Your task to perform on an android device: View the shopping cart on walmart. Add "lg ultragear" to the cart on walmart, then select checkout. Image 0: 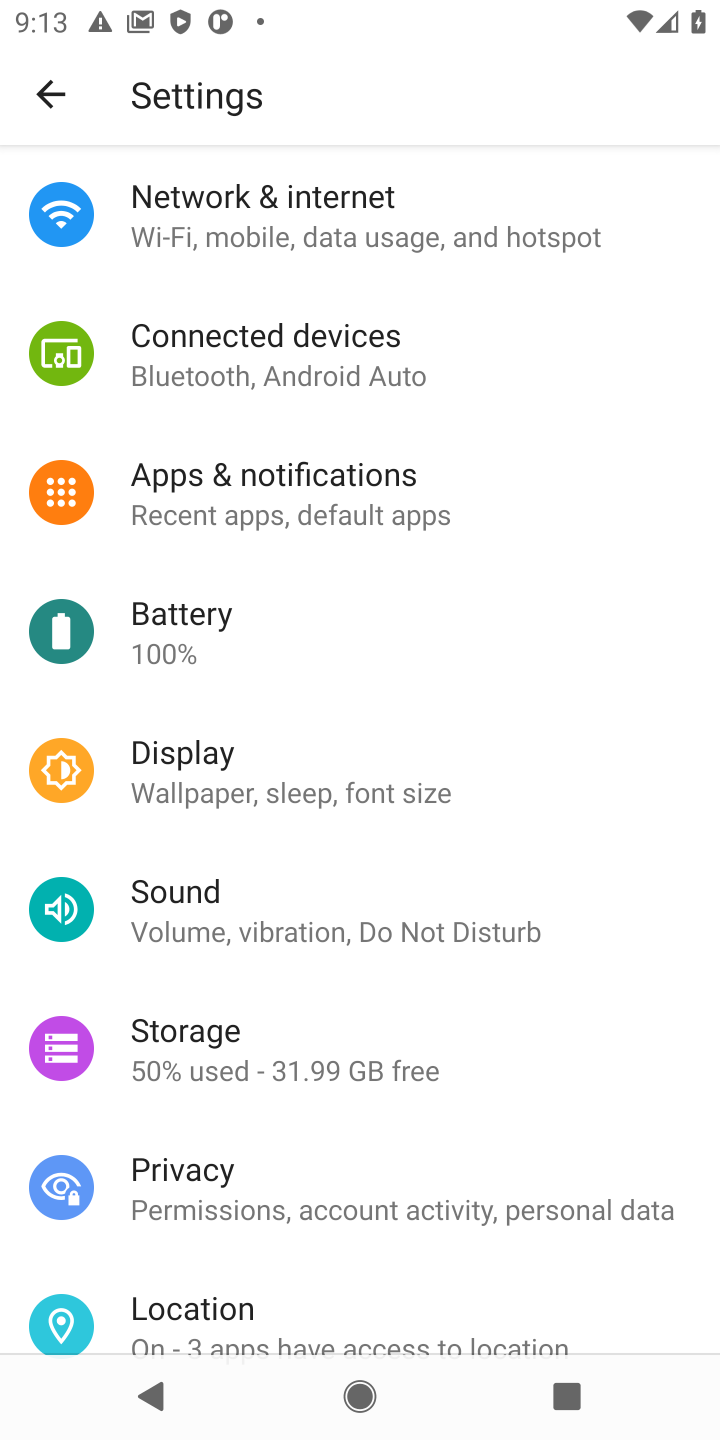
Step 0: press home button
Your task to perform on an android device: View the shopping cart on walmart. Add "lg ultragear" to the cart on walmart, then select checkout. Image 1: 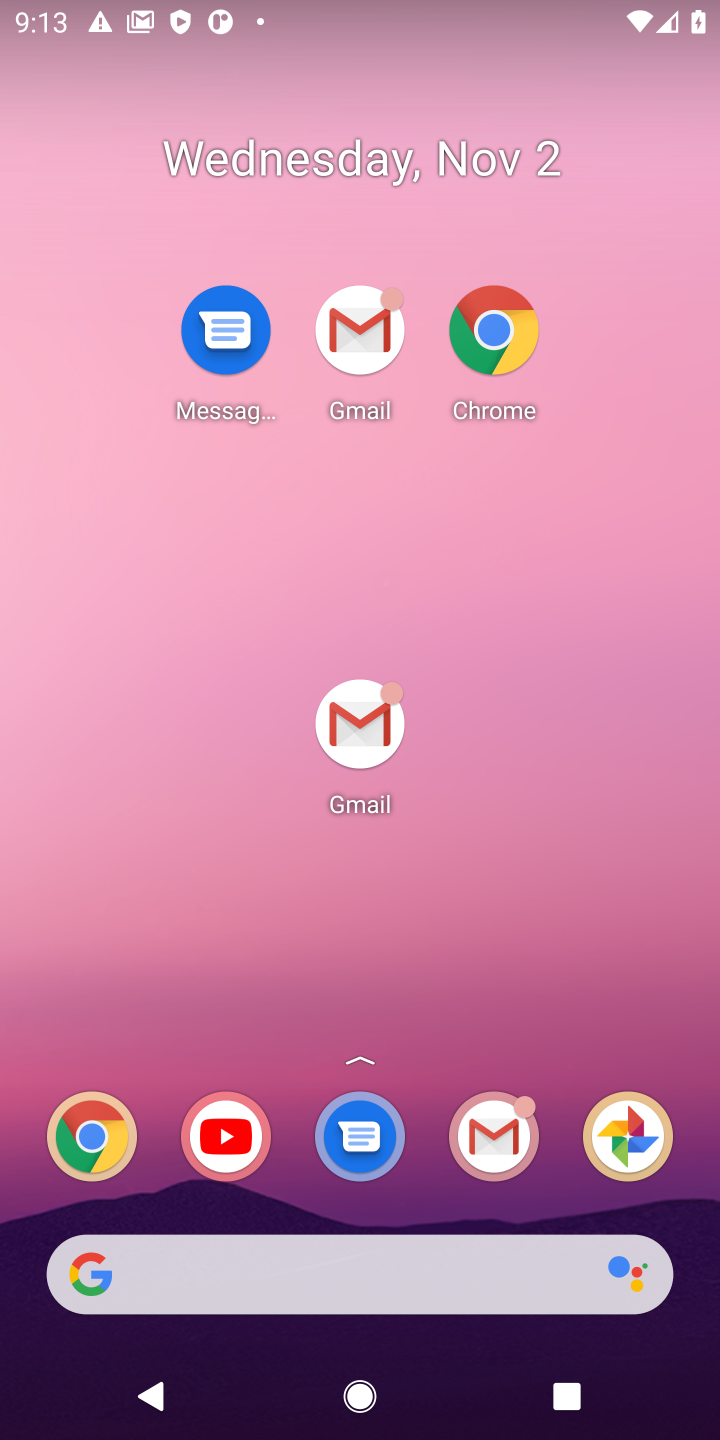
Step 1: drag from (345, 1105) to (374, 209)
Your task to perform on an android device: View the shopping cart on walmart. Add "lg ultragear" to the cart on walmart, then select checkout. Image 2: 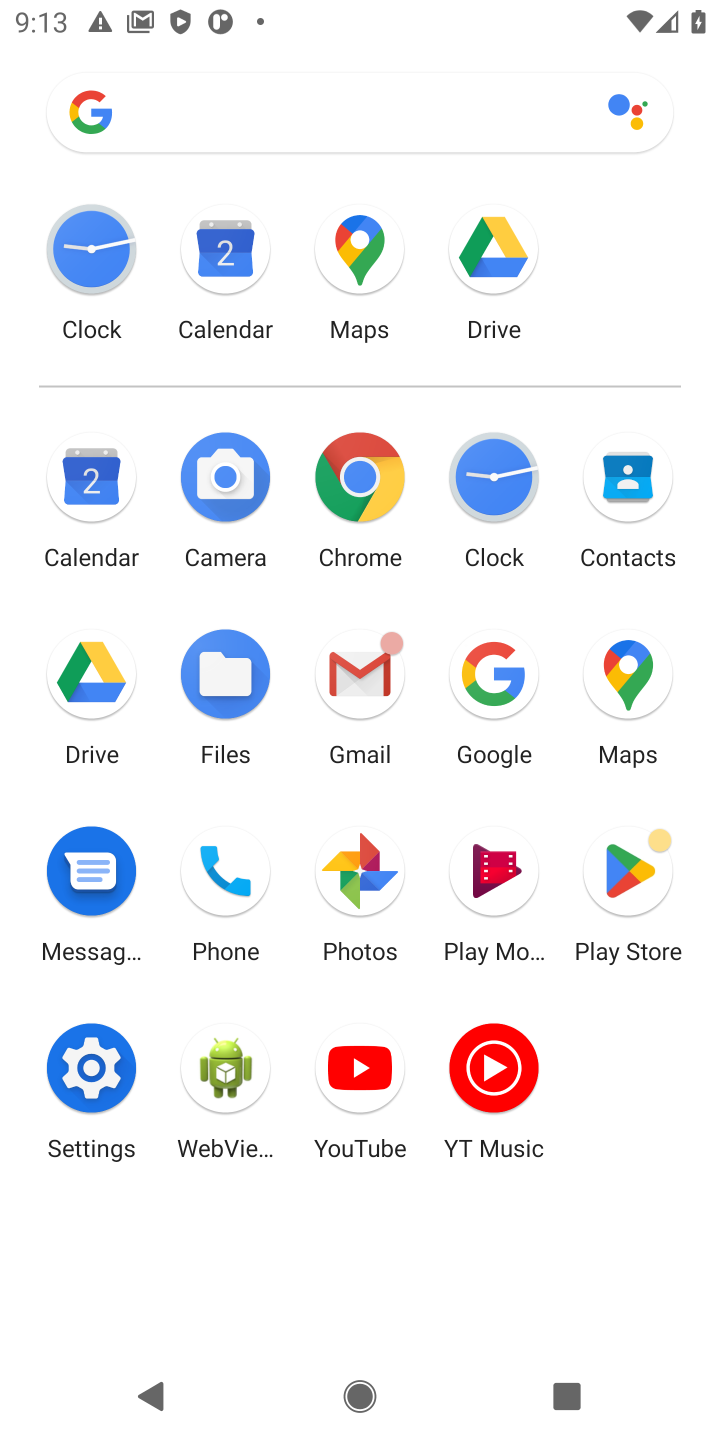
Step 2: click (496, 651)
Your task to perform on an android device: View the shopping cart on walmart. Add "lg ultragear" to the cart on walmart, then select checkout. Image 3: 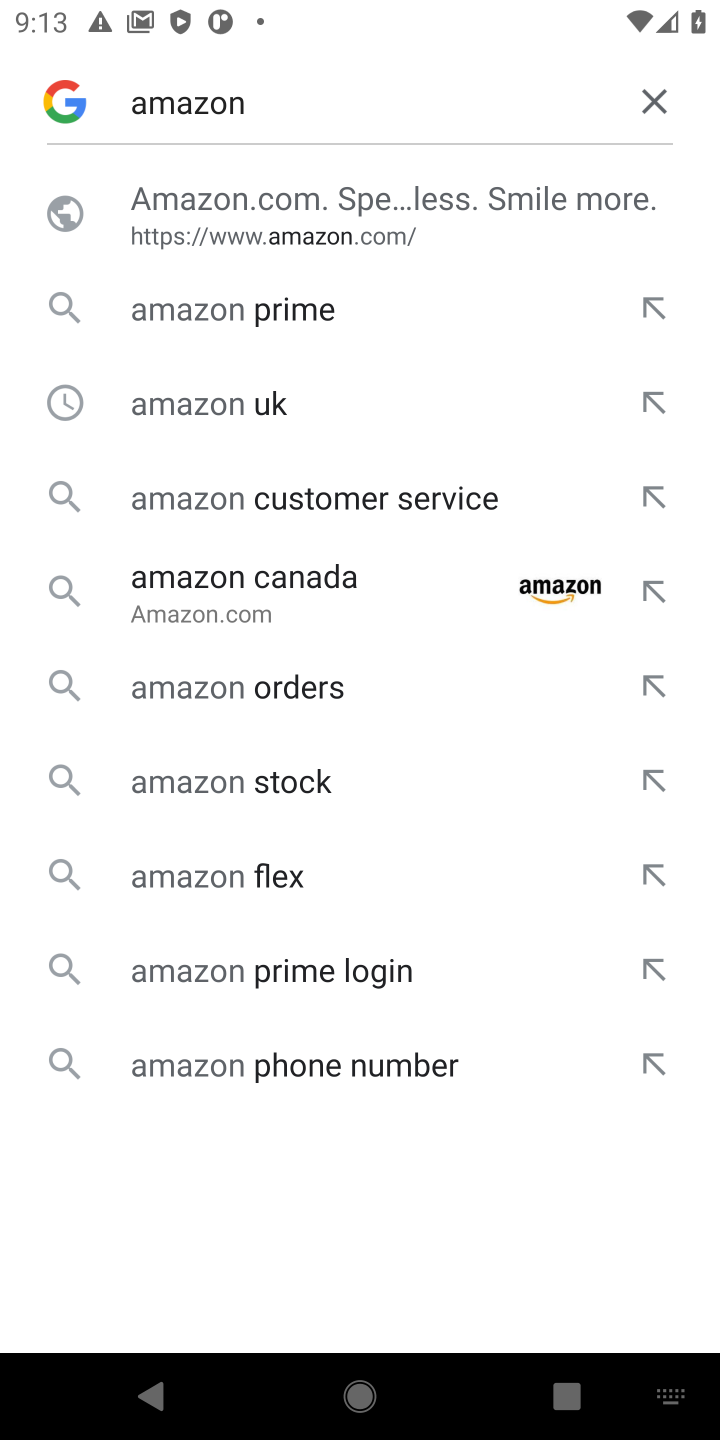
Step 3: click (654, 107)
Your task to perform on an android device: View the shopping cart on walmart. Add "lg ultragear" to the cart on walmart, then select checkout. Image 4: 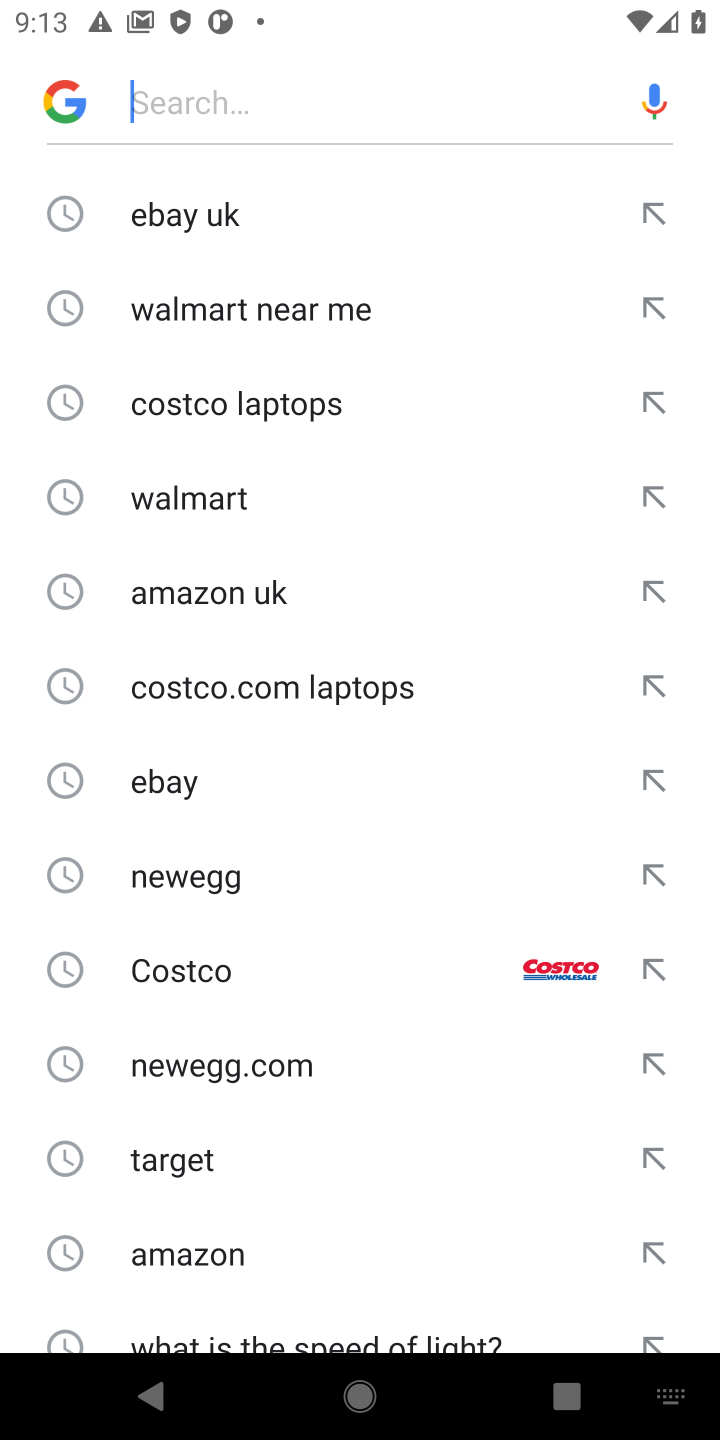
Step 4: click (271, 318)
Your task to perform on an android device: View the shopping cart on walmart. Add "lg ultragear" to the cart on walmart, then select checkout. Image 5: 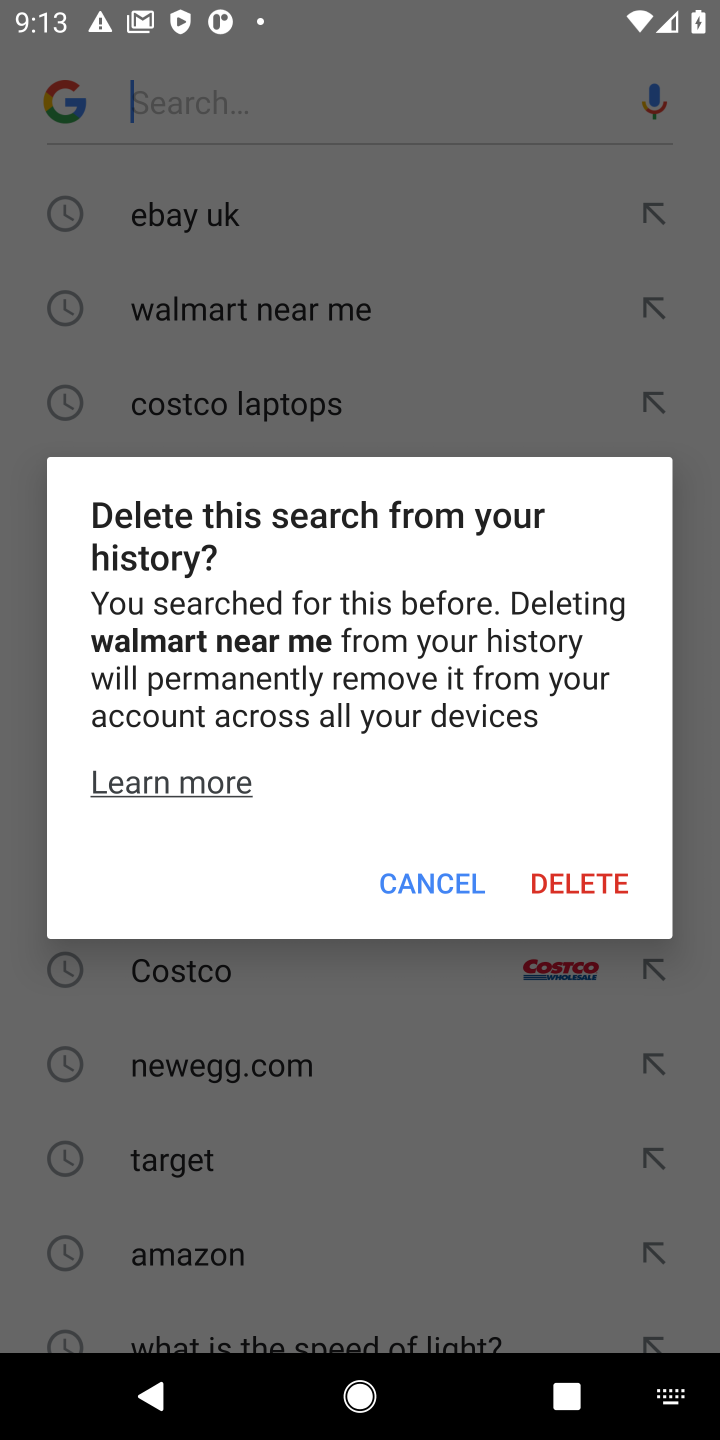
Step 5: click (436, 865)
Your task to perform on an android device: View the shopping cart on walmart. Add "lg ultragear" to the cart on walmart, then select checkout. Image 6: 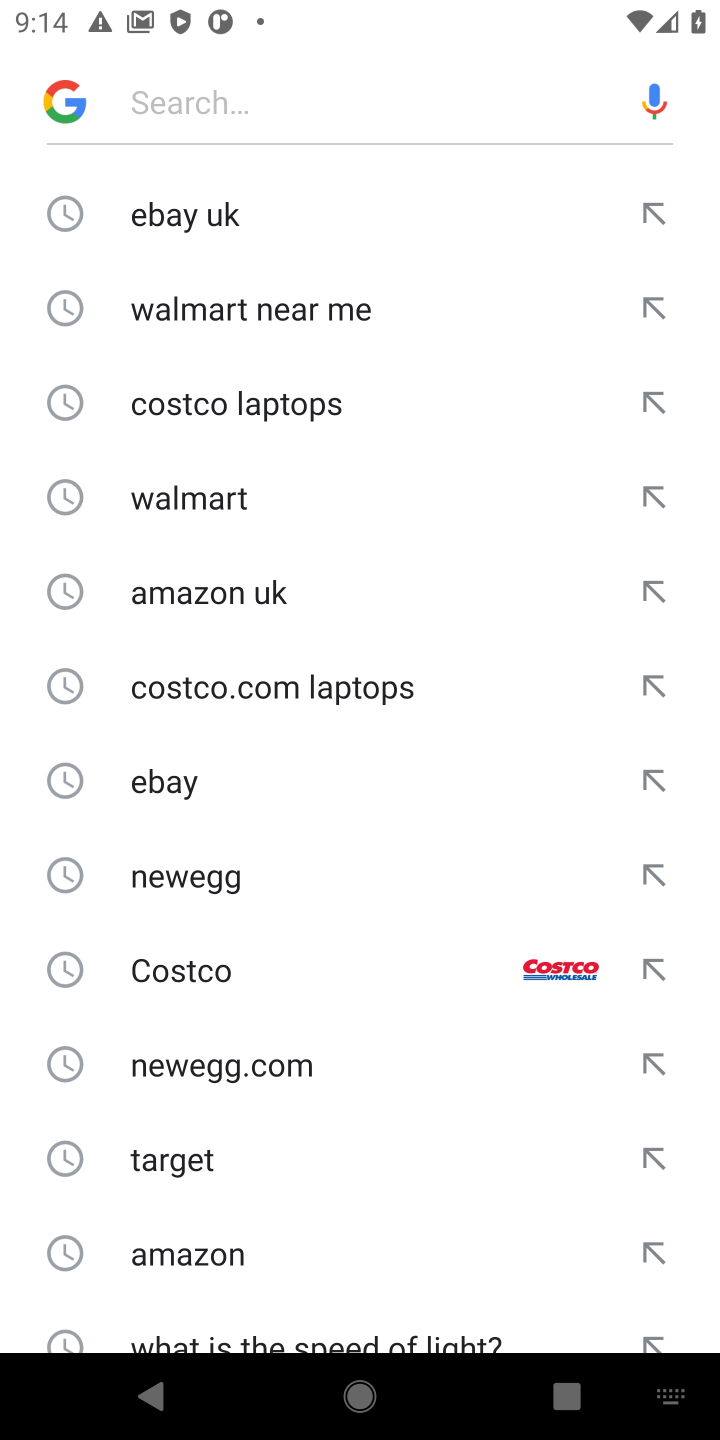
Step 6: click (369, 108)
Your task to perform on an android device: View the shopping cart on walmart. Add "lg ultragear" to the cart on walmart, then select checkout. Image 7: 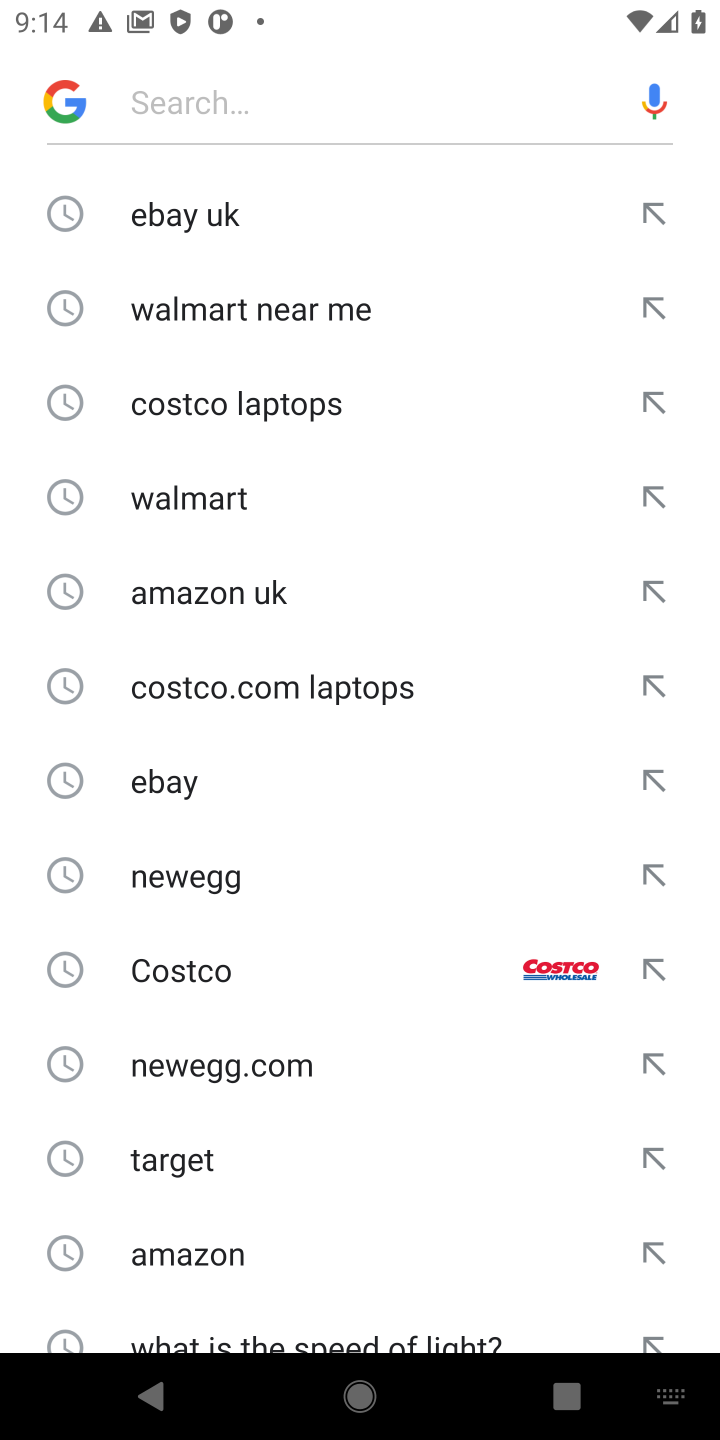
Step 7: type "walmart "
Your task to perform on an android device: View the shopping cart on walmart. Add "lg ultragear" to the cart on walmart, then select checkout. Image 8: 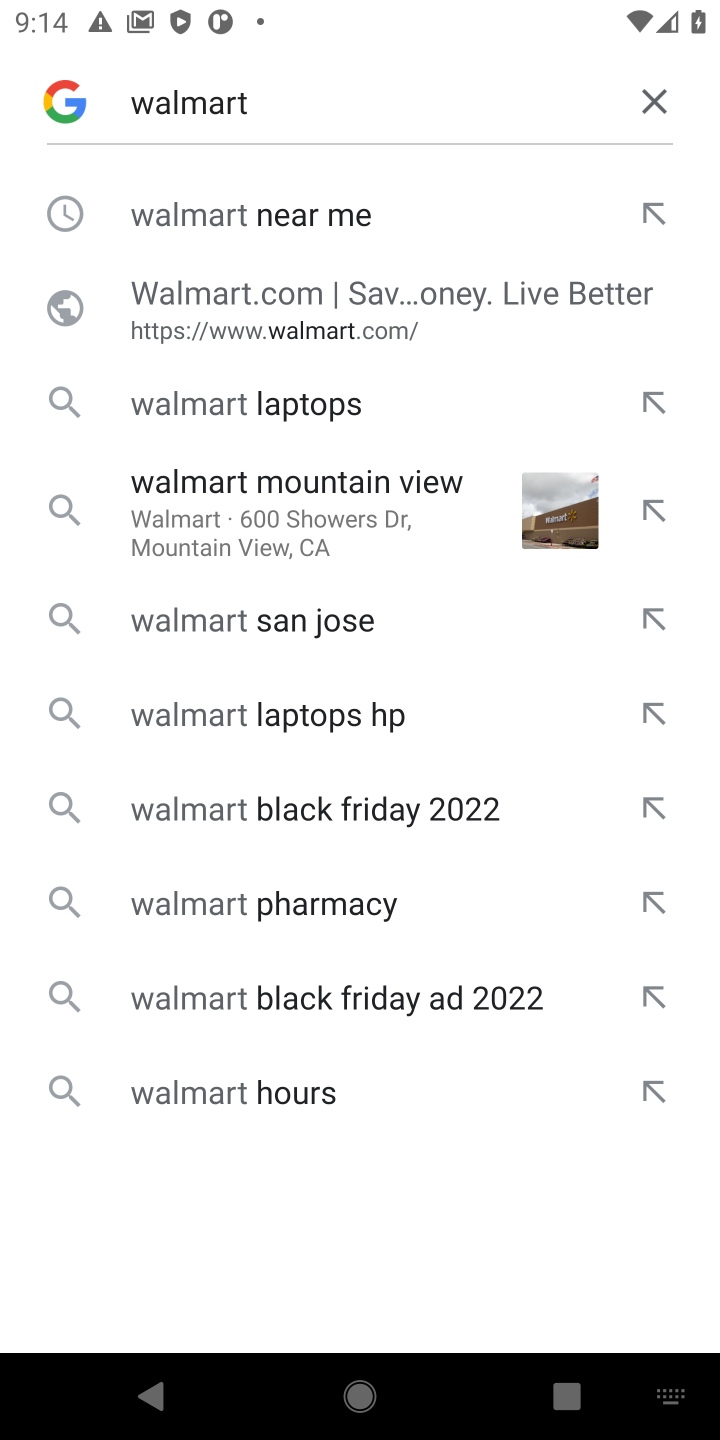
Step 8: click (310, 227)
Your task to perform on an android device: View the shopping cart on walmart. Add "lg ultragear" to the cart on walmart, then select checkout. Image 9: 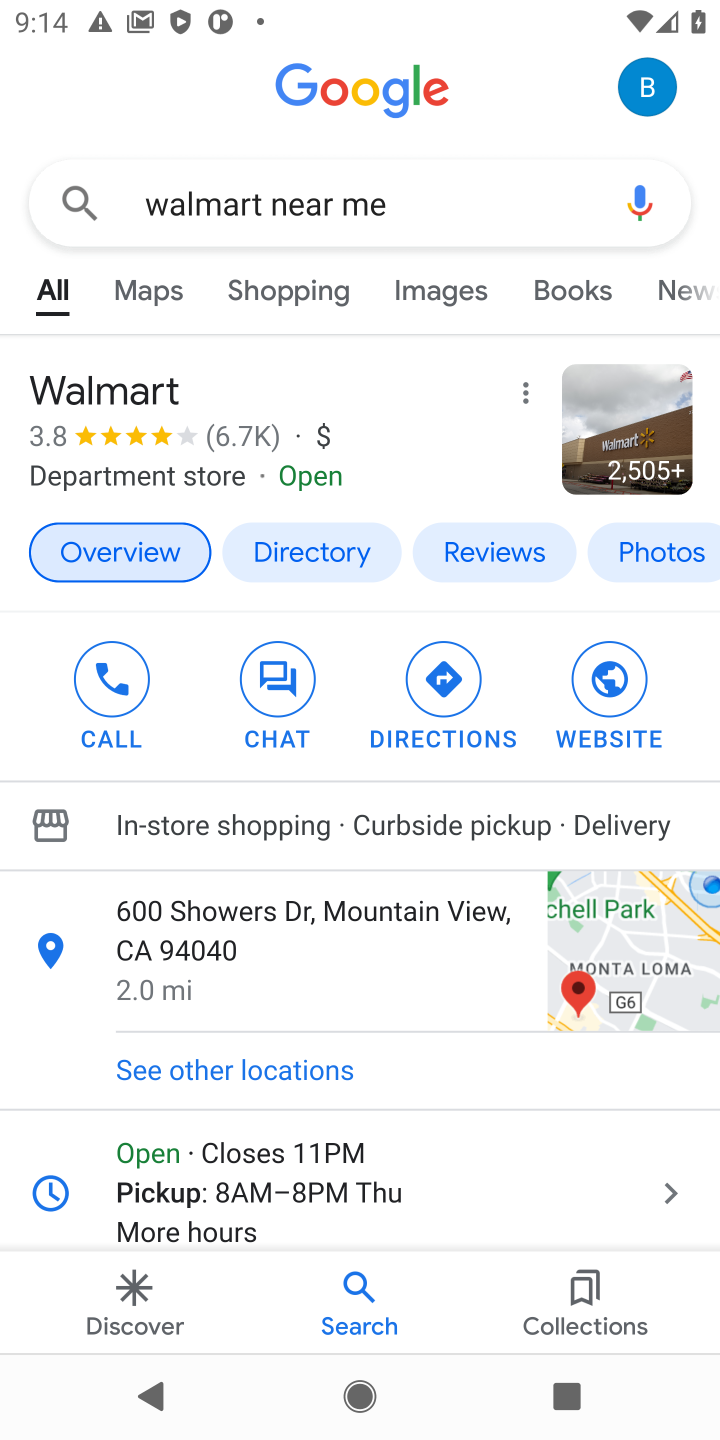
Step 9: drag from (300, 1173) to (327, 350)
Your task to perform on an android device: View the shopping cart on walmart. Add "lg ultragear" to the cart on walmart, then select checkout. Image 10: 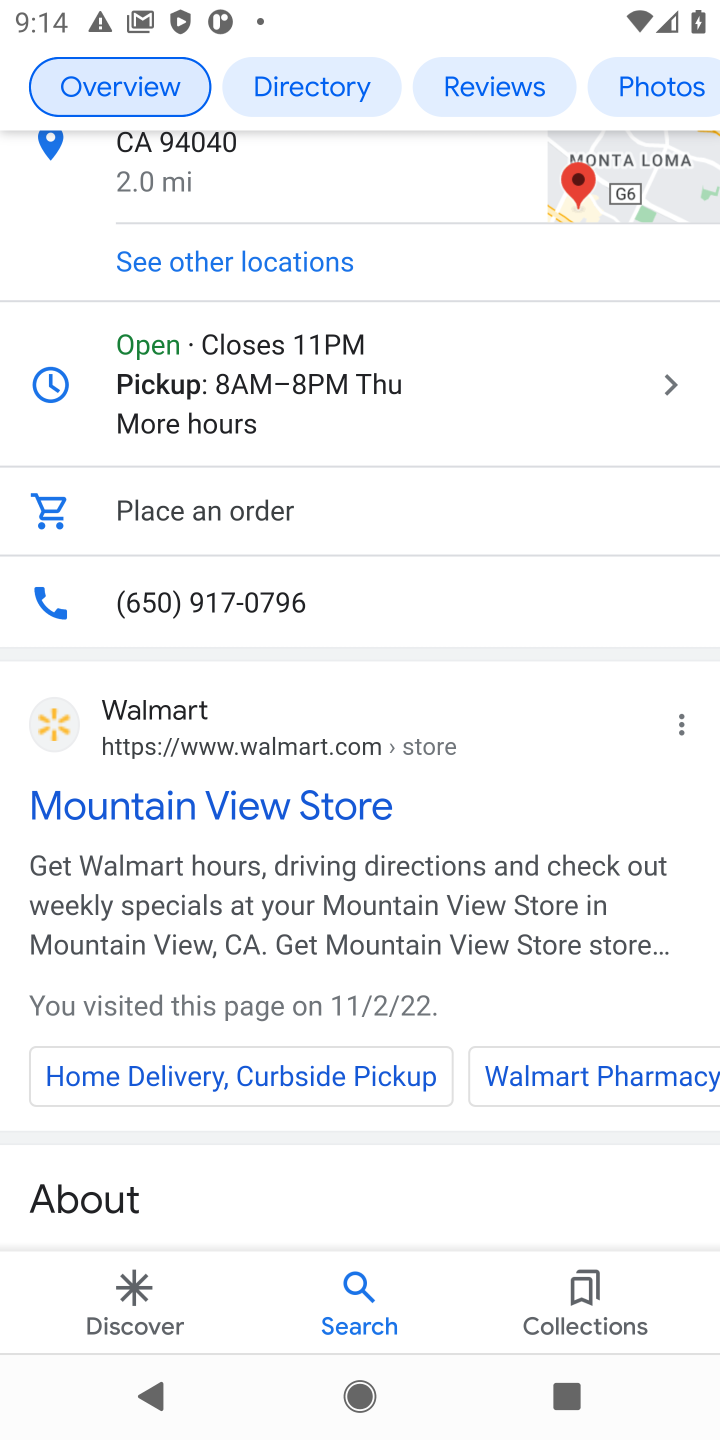
Step 10: click (52, 721)
Your task to perform on an android device: View the shopping cart on walmart. Add "lg ultragear" to the cart on walmart, then select checkout. Image 11: 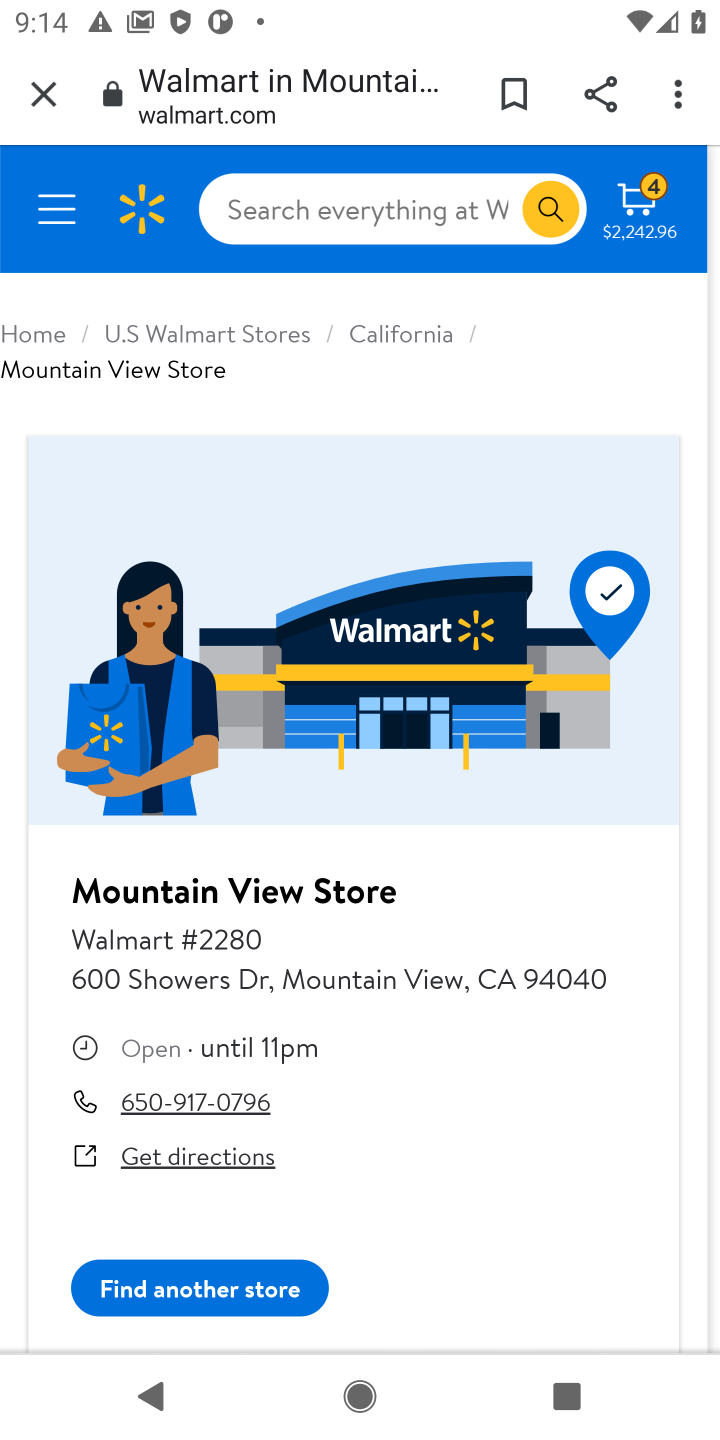
Step 11: click (315, 190)
Your task to perform on an android device: View the shopping cart on walmart. Add "lg ultragear" to the cart on walmart, then select checkout. Image 12: 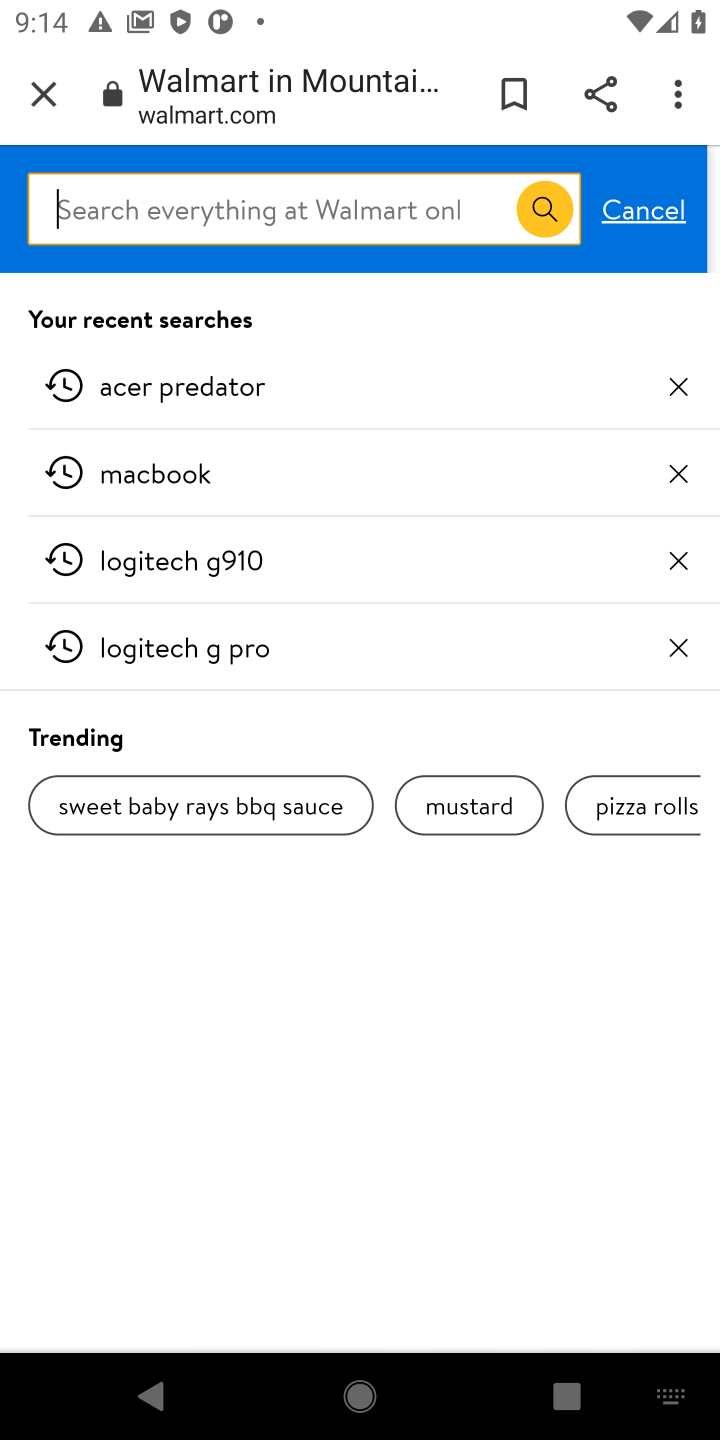
Step 12: click (302, 188)
Your task to perform on an android device: View the shopping cart on walmart. Add "lg ultragear" to the cart on walmart, then select checkout. Image 13: 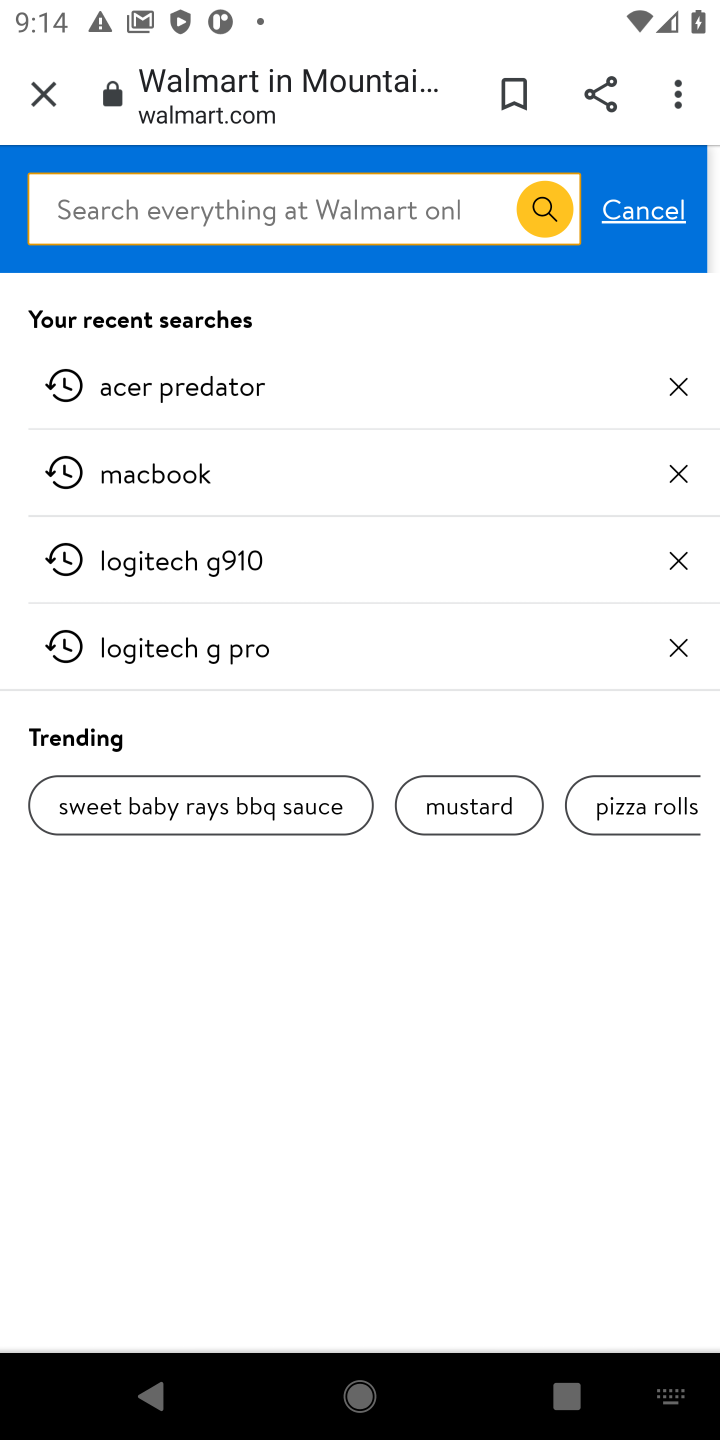
Step 13: type "lg ultragear "
Your task to perform on an android device: View the shopping cart on walmart. Add "lg ultragear" to the cart on walmart, then select checkout. Image 14: 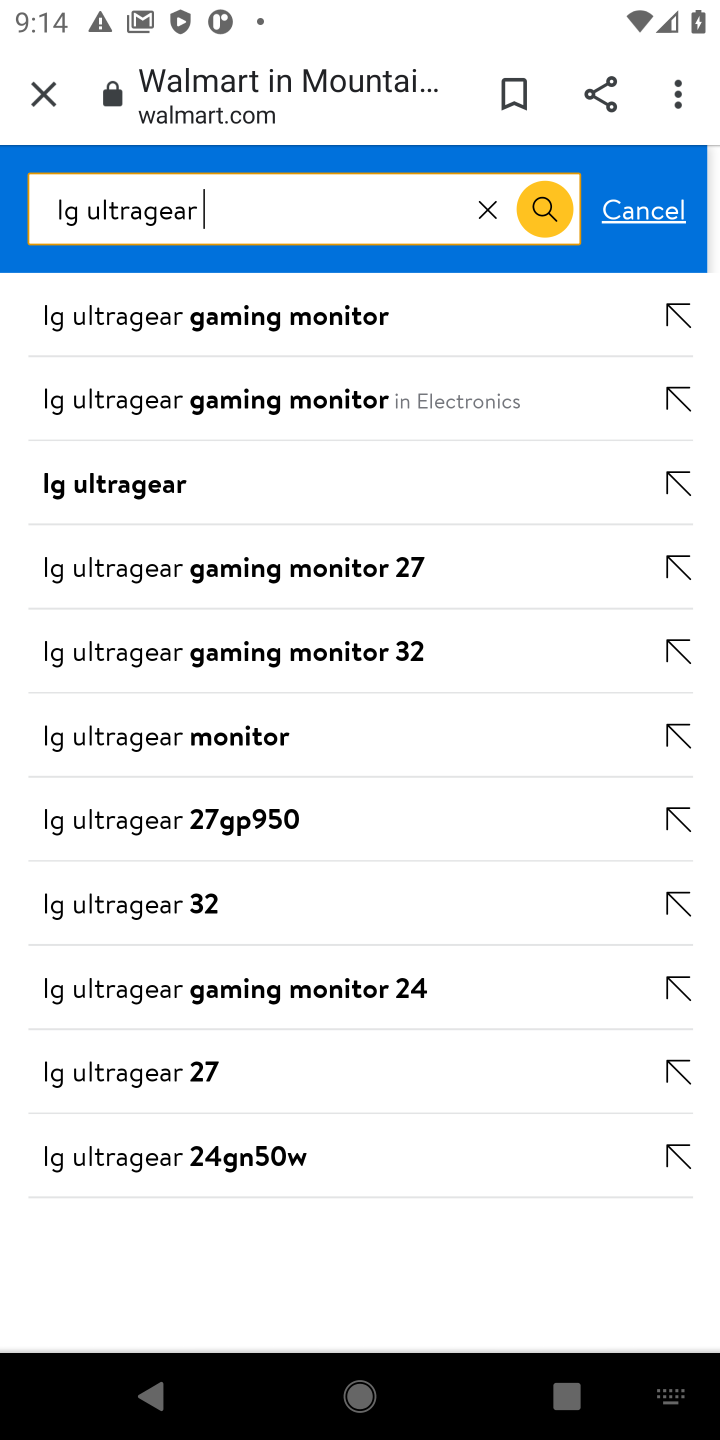
Step 14: click (129, 469)
Your task to perform on an android device: View the shopping cart on walmart. Add "lg ultragear" to the cart on walmart, then select checkout. Image 15: 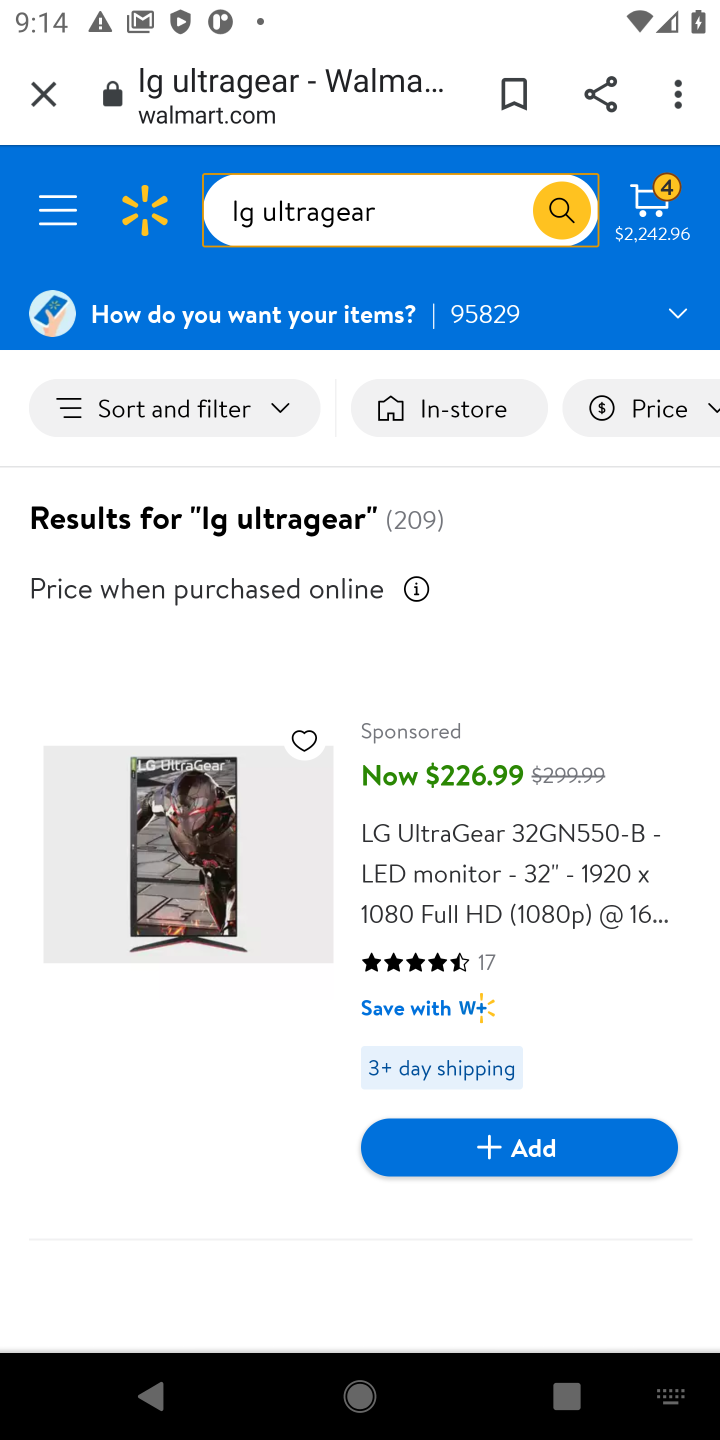
Step 15: click (439, 1138)
Your task to perform on an android device: View the shopping cart on walmart. Add "lg ultragear" to the cart on walmart, then select checkout. Image 16: 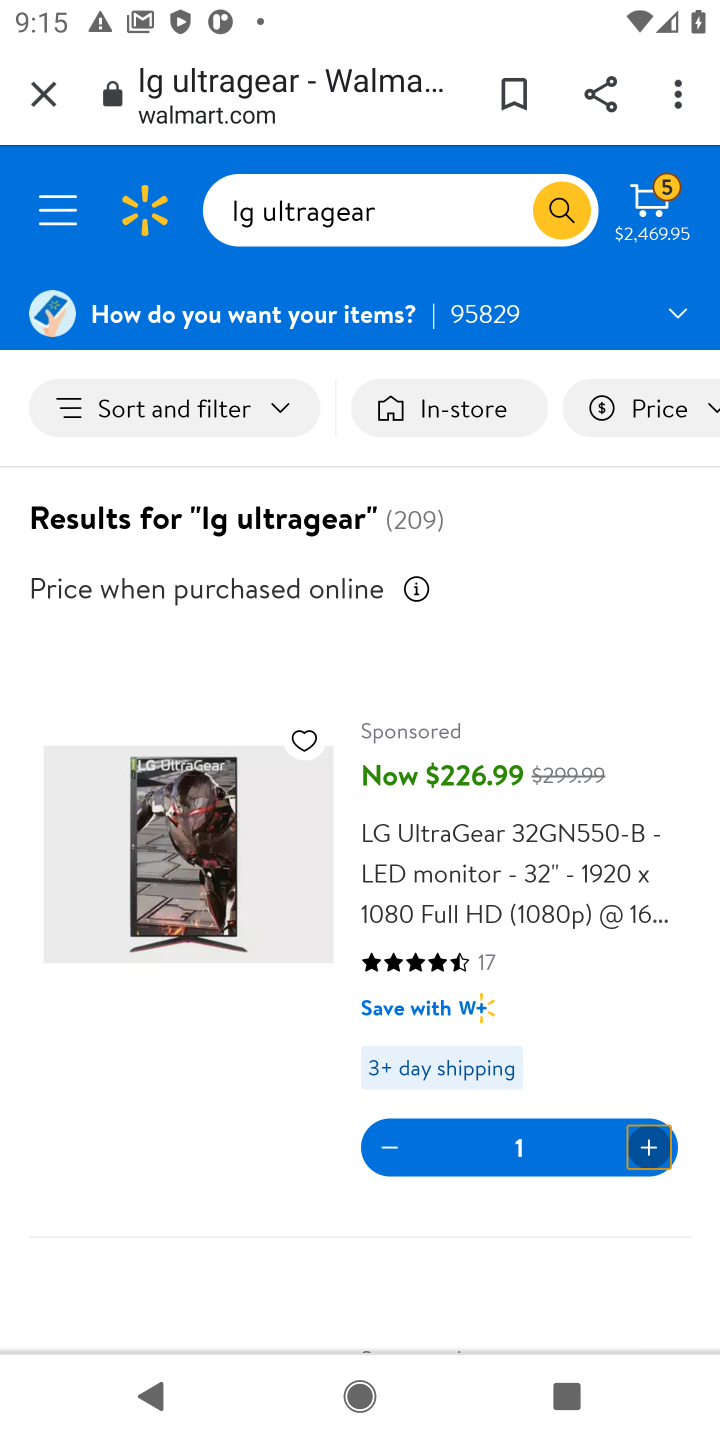
Step 16: task complete